Your task to perform on an android device: Open network settings Image 0: 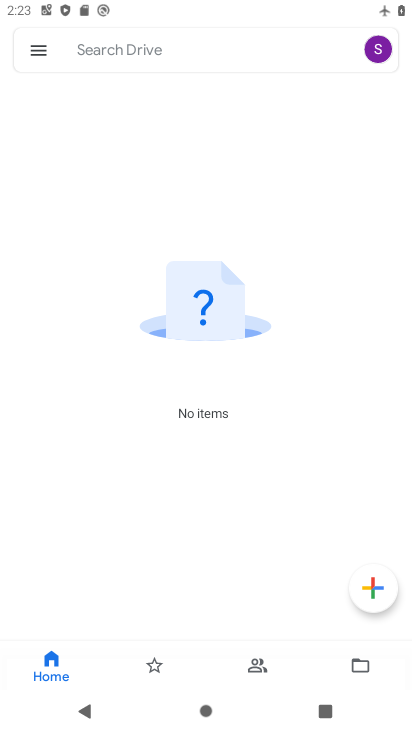
Step 0: press home button
Your task to perform on an android device: Open network settings Image 1: 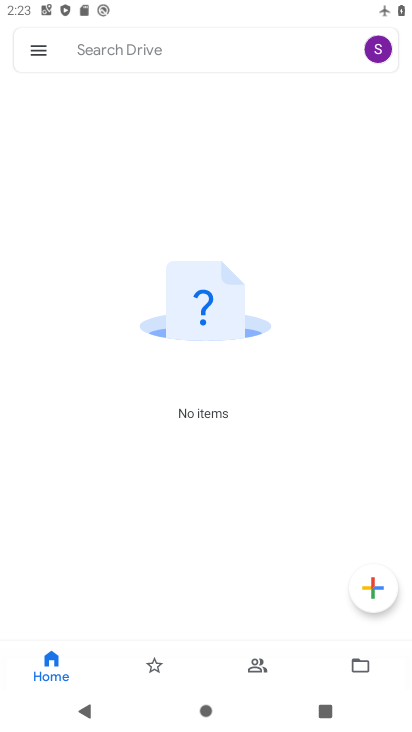
Step 1: drag from (120, 645) to (259, 172)
Your task to perform on an android device: Open network settings Image 2: 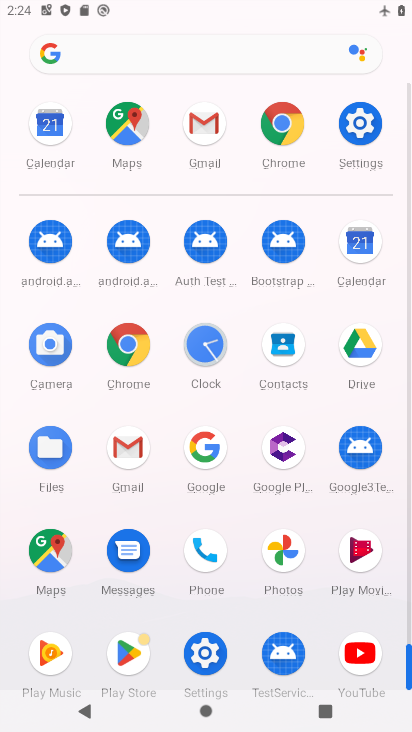
Step 2: click (197, 655)
Your task to perform on an android device: Open network settings Image 3: 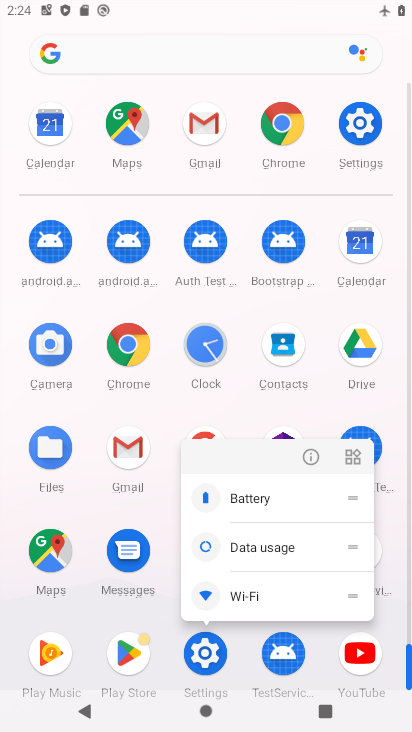
Step 3: click (315, 452)
Your task to perform on an android device: Open network settings Image 4: 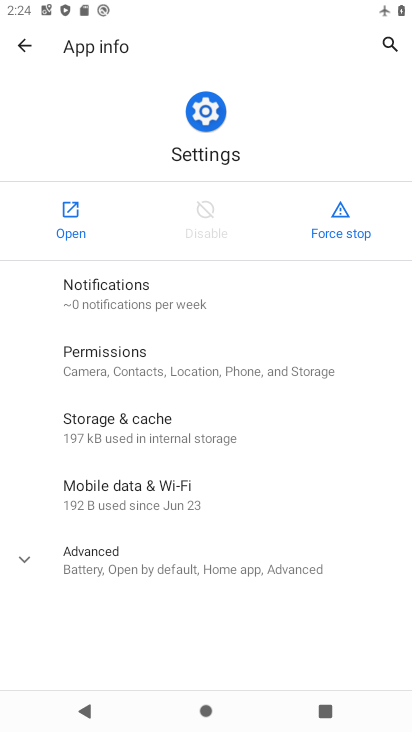
Step 4: click (72, 241)
Your task to perform on an android device: Open network settings Image 5: 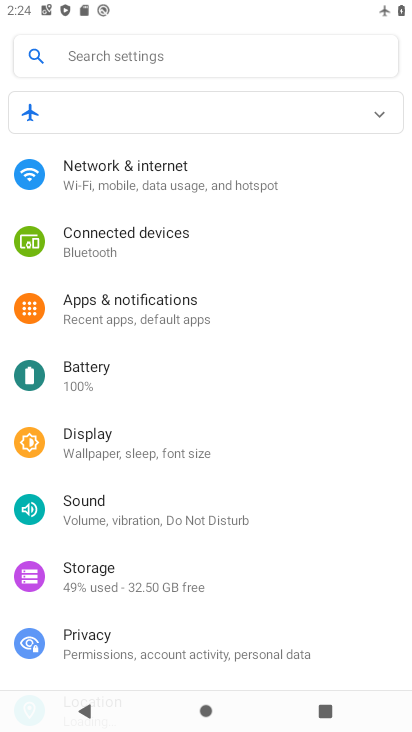
Step 5: drag from (185, 614) to (230, 266)
Your task to perform on an android device: Open network settings Image 6: 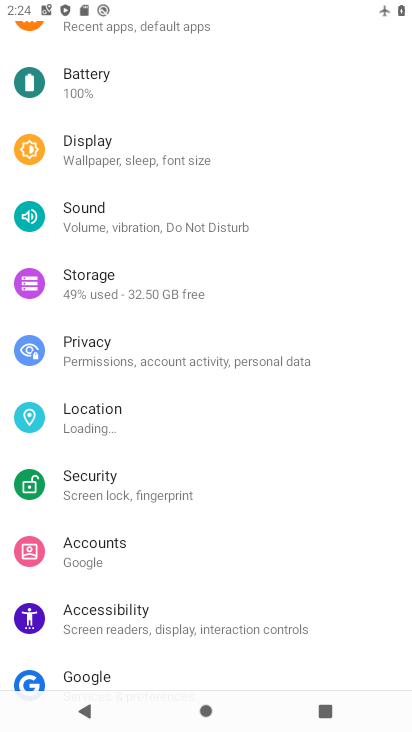
Step 6: drag from (218, 297) to (259, 728)
Your task to perform on an android device: Open network settings Image 7: 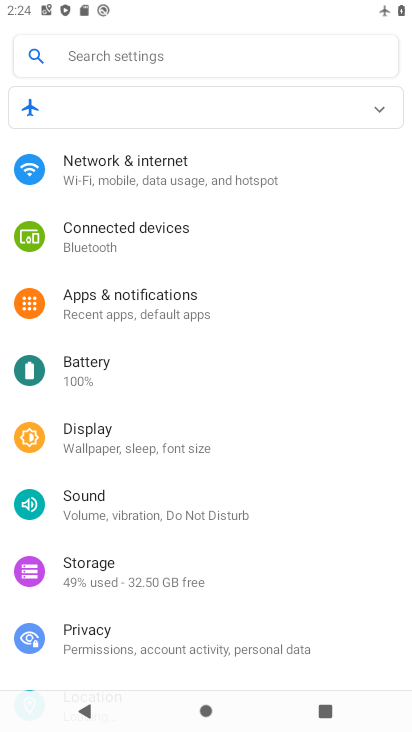
Step 7: click (127, 182)
Your task to perform on an android device: Open network settings Image 8: 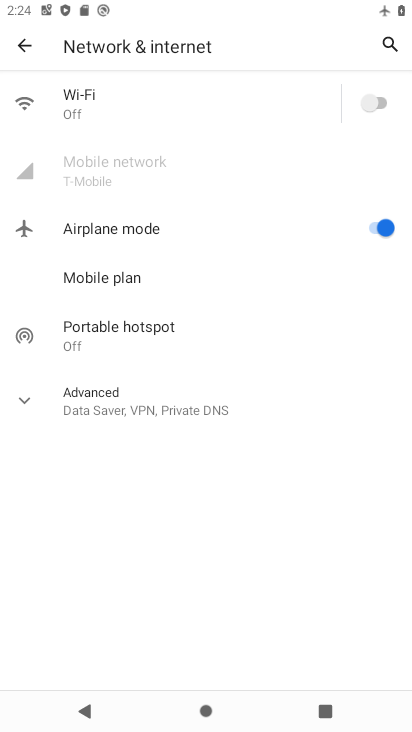
Step 8: task complete